Your task to perform on an android device: see creations saved in the google photos Image 0: 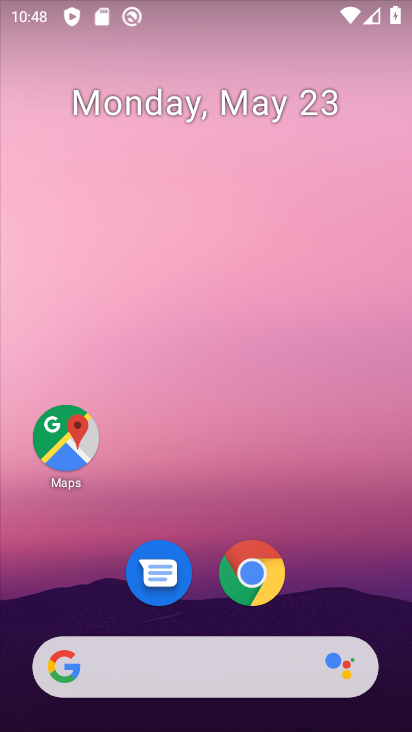
Step 0: drag from (338, 560) to (257, 114)
Your task to perform on an android device: see creations saved in the google photos Image 1: 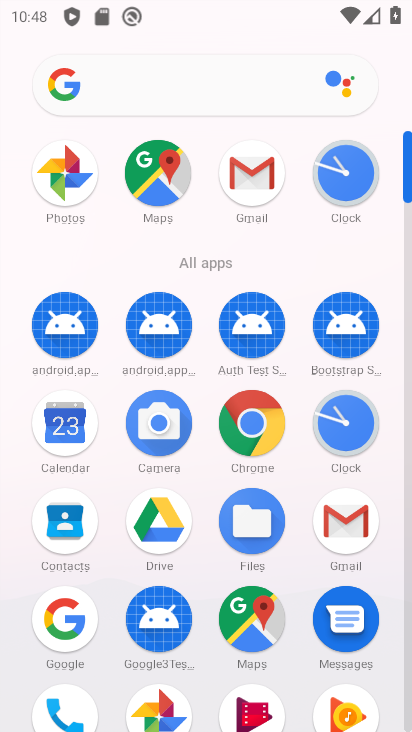
Step 1: drag from (299, 600) to (273, 210)
Your task to perform on an android device: see creations saved in the google photos Image 2: 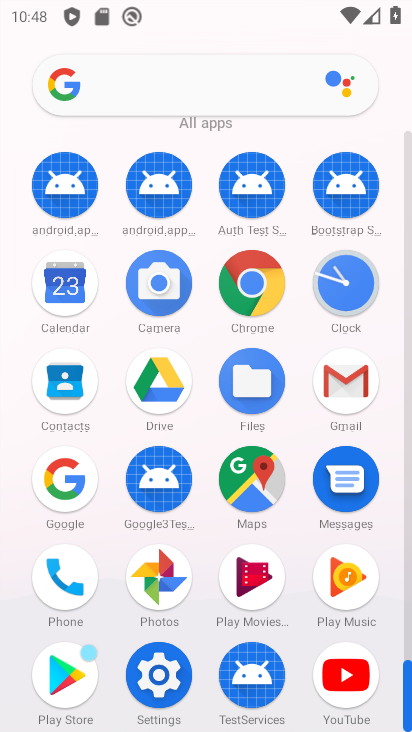
Step 2: click (166, 584)
Your task to perform on an android device: see creations saved in the google photos Image 3: 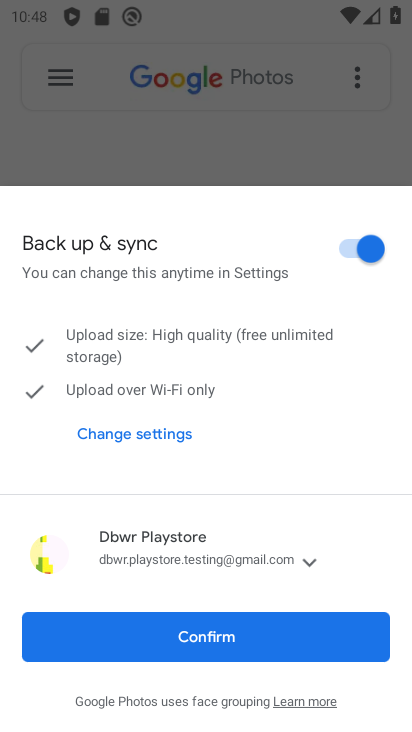
Step 3: click (235, 634)
Your task to perform on an android device: see creations saved in the google photos Image 4: 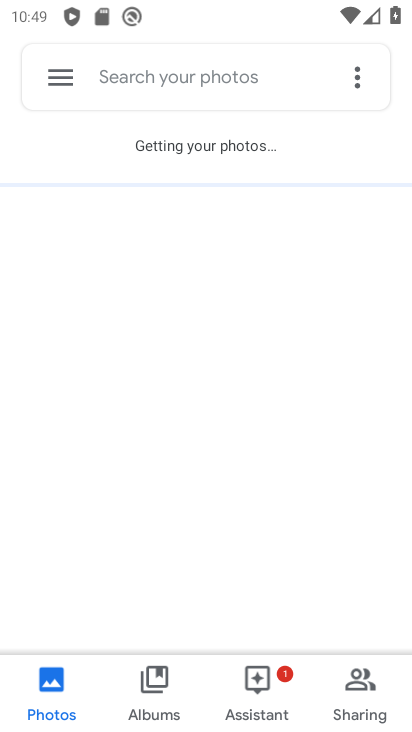
Step 4: click (137, 77)
Your task to perform on an android device: see creations saved in the google photos Image 5: 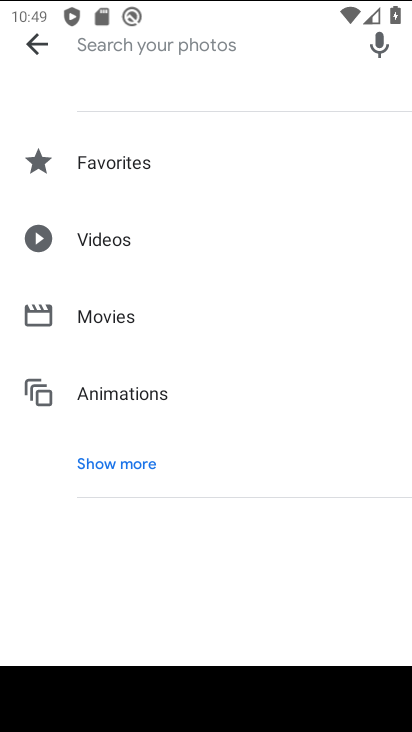
Step 5: type "creations "
Your task to perform on an android device: see creations saved in the google photos Image 6: 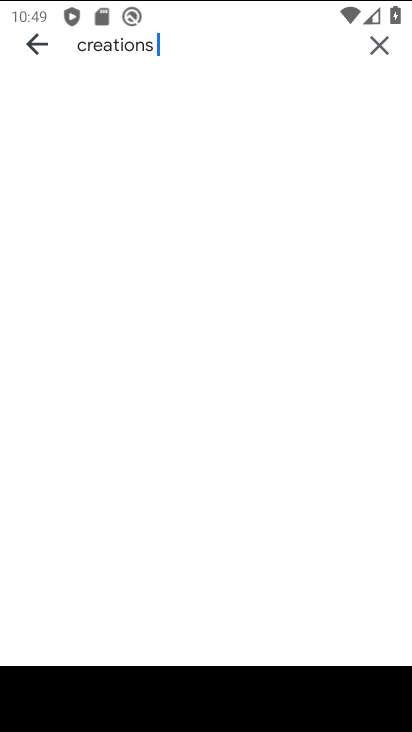
Step 6: task complete